Your task to perform on an android device: add a contact in the contacts app Image 0: 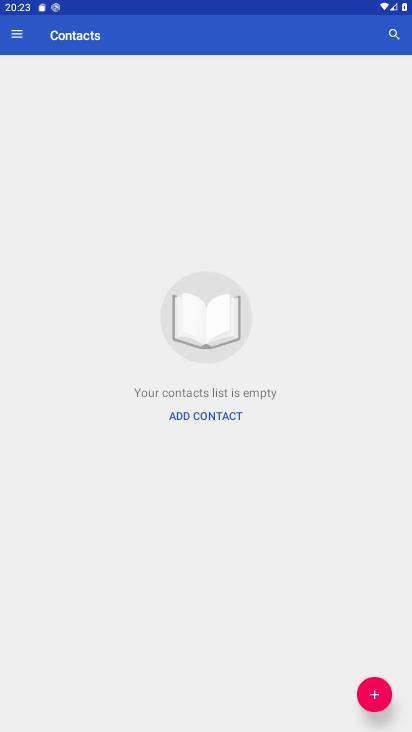
Step 0: click (363, 694)
Your task to perform on an android device: add a contact in the contacts app Image 1: 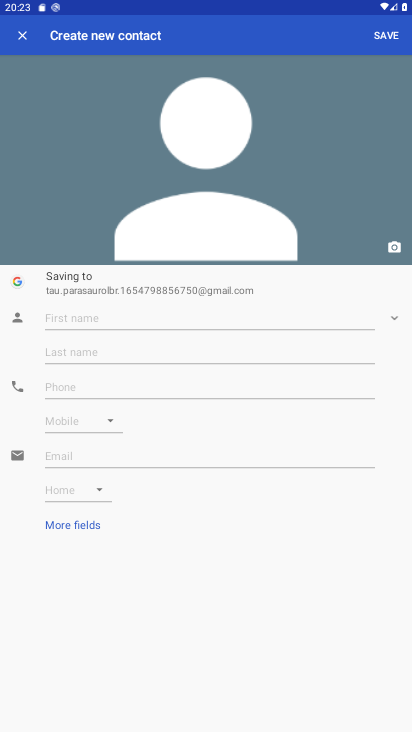
Step 1: click (220, 315)
Your task to perform on an android device: add a contact in the contacts app Image 2: 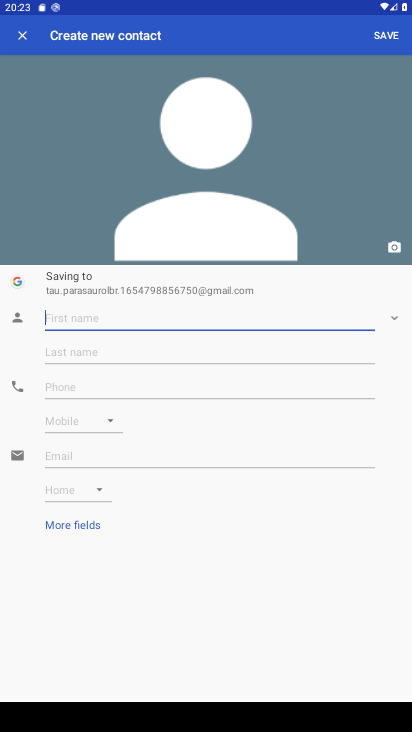
Step 2: type "."
Your task to perform on an android device: add a contact in the contacts app Image 3: 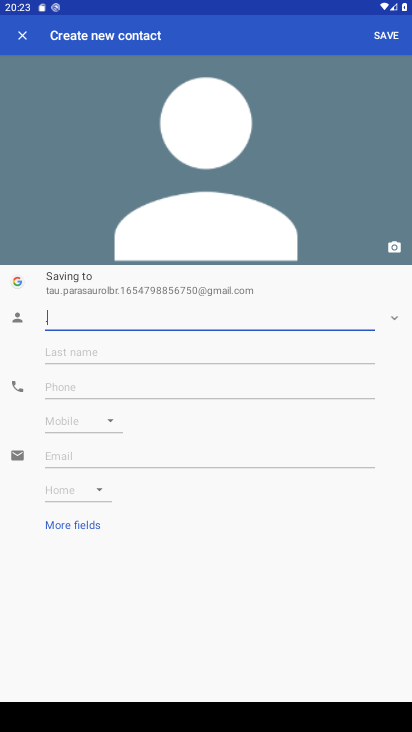
Step 3: click (74, 382)
Your task to perform on an android device: add a contact in the contacts app Image 4: 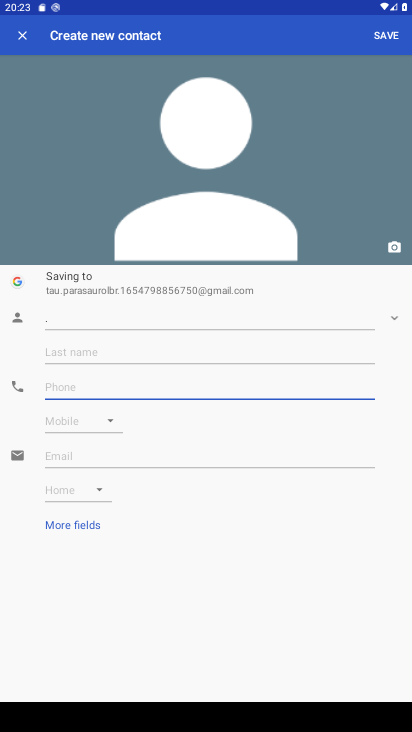
Step 4: type "o987654345"
Your task to perform on an android device: add a contact in the contacts app Image 5: 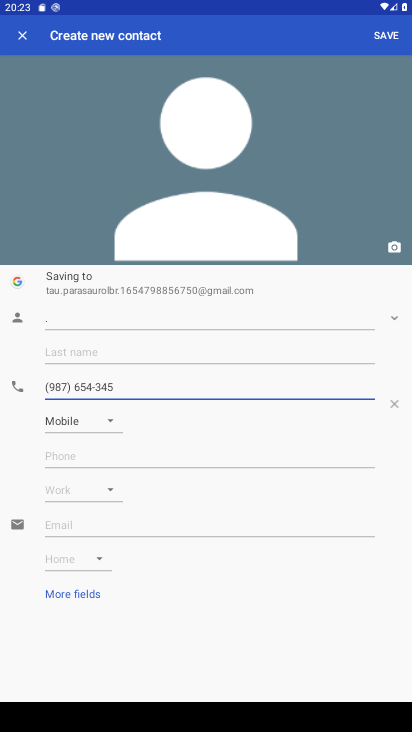
Step 5: click (378, 38)
Your task to perform on an android device: add a contact in the contacts app Image 6: 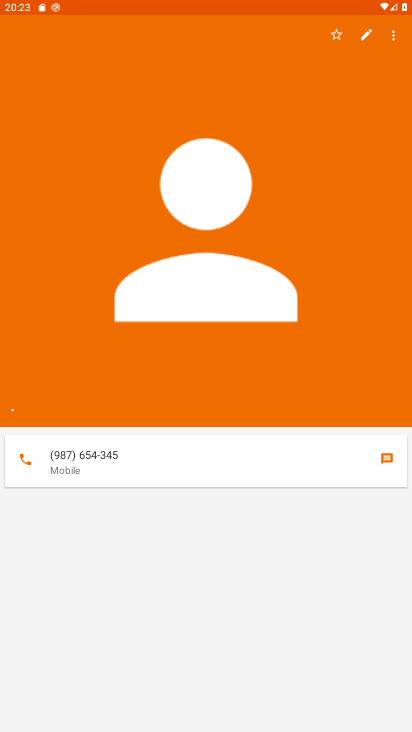
Step 6: task complete